Your task to perform on an android device: all mails in gmail Image 0: 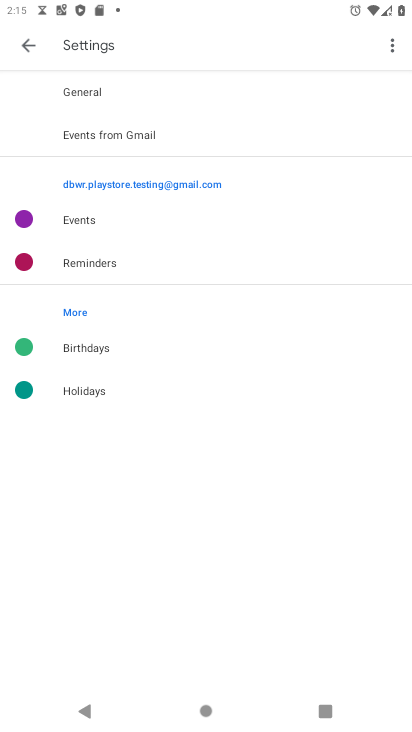
Step 0: press home button
Your task to perform on an android device: all mails in gmail Image 1: 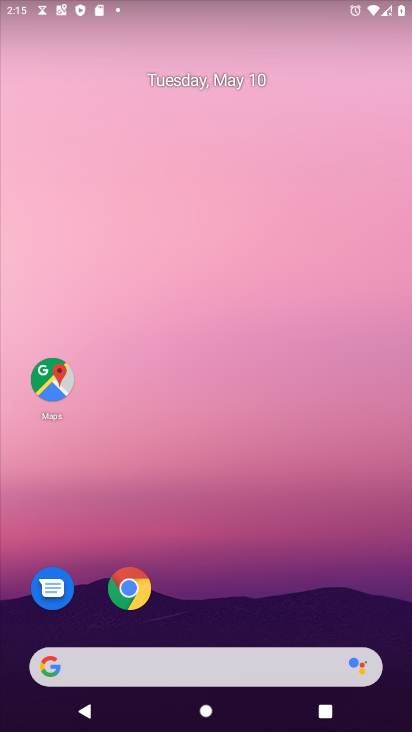
Step 1: drag from (263, 558) to (269, 256)
Your task to perform on an android device: all mails in gmail Image 2: 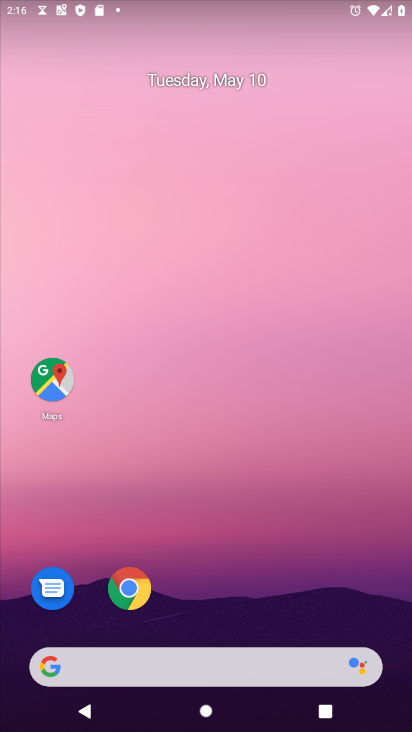
Step 2: drag from (197, 664) to (223, 276)
Your task to perform on an android device: all mails in gmail Image 3: 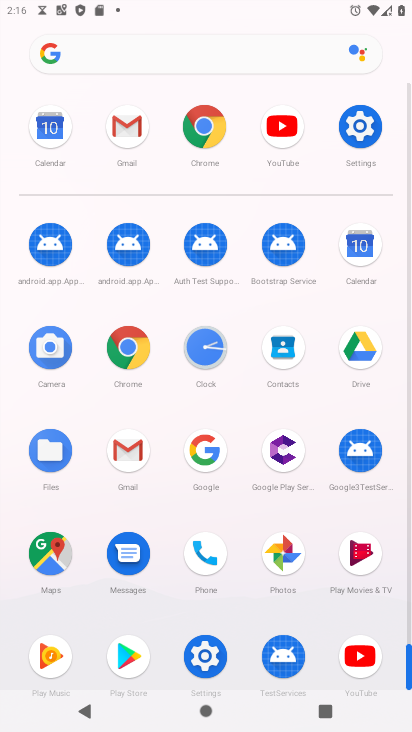
Step 3: click (126, 447)
Your task to perform on an android device: all mails in gmail Image 4: 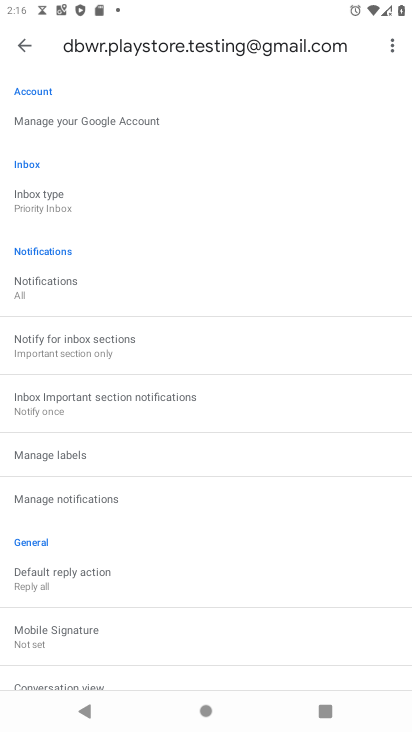
Step 4: click (26, 42)
Your task to perform on an android device: all mails in gmail Image 5: 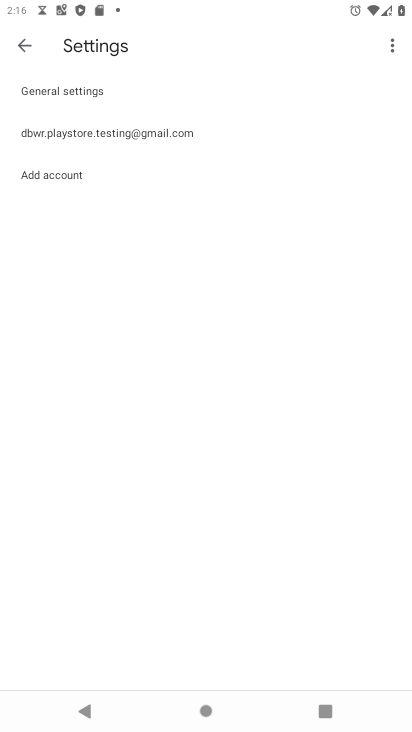
Step 5: click (26, 42)
Your task to perform on an android device: all mails in gmail Image 6: 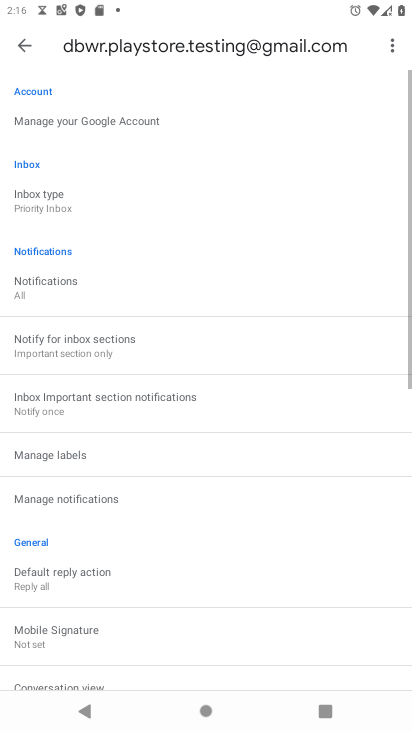
Step 6: click (26, 42)
Your task to perform on an android device: all mails in gmail Image 7: 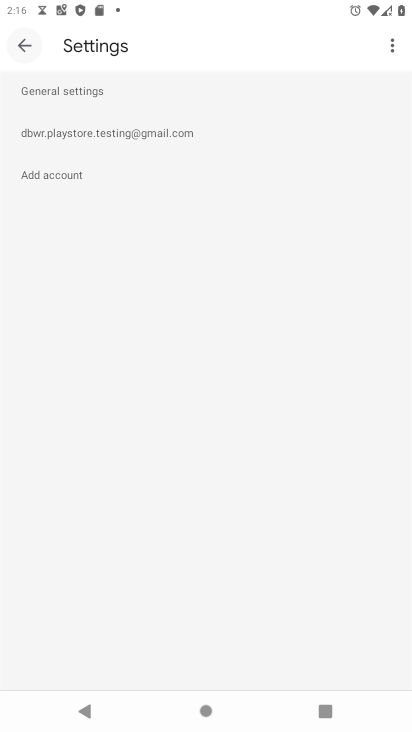
Step 7: click (26, 42)
Your task to perform on an android device: all mails in gmail Image 8: 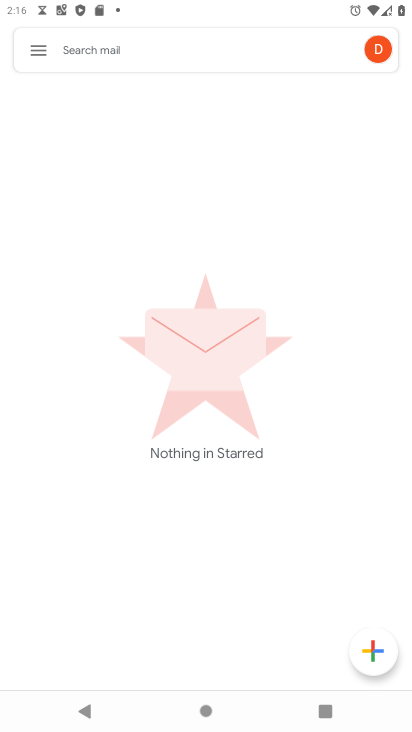
Step 8: click (26, 42)
Your task to perform on an android device: all mails in gmail Image 9: 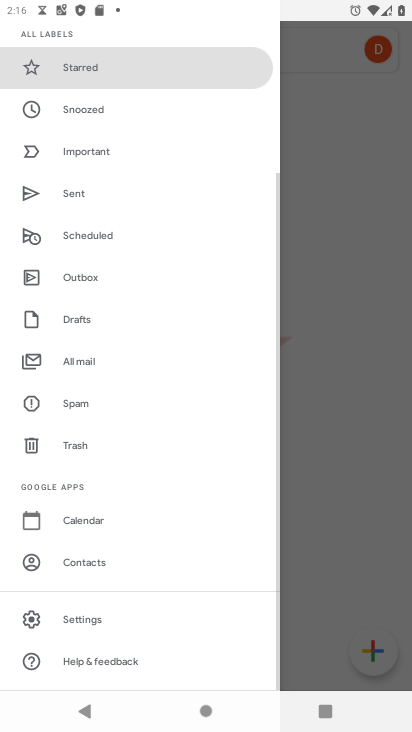
Step 9: click (91, 364)
Your task to perform on an android device: all mails in gmail Image 10: 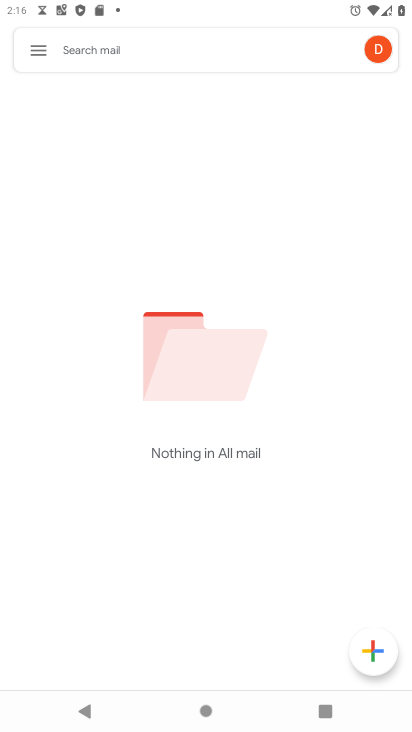
Step 10: task complete